Your task to perform on an android device: Open Android settings Image 0: 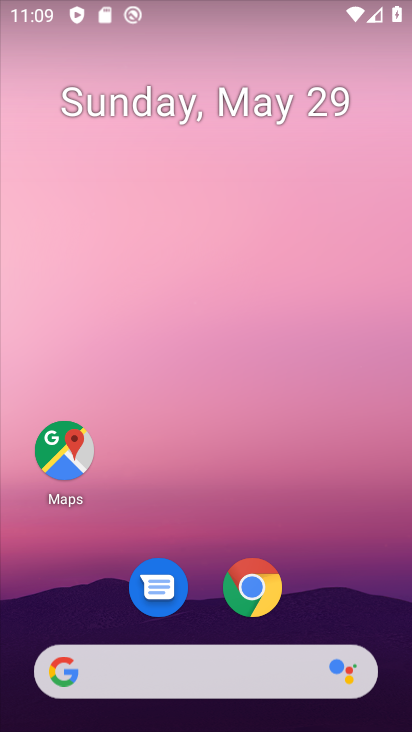
Step 0: drag from (390, 607) to (339, 200)
Your task to perform on an android device: Open Android settings Image 1: 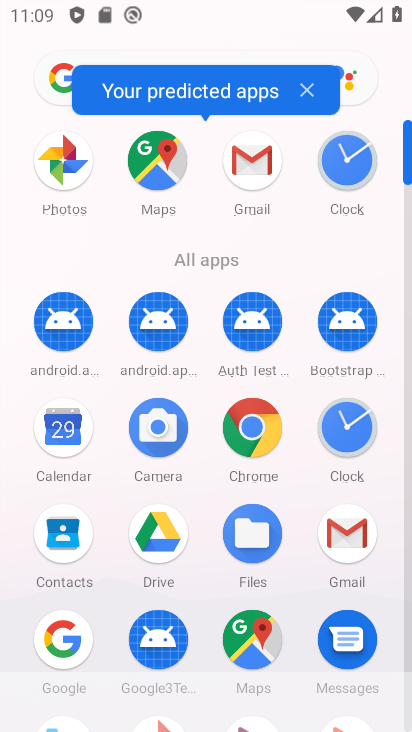
Step 1: click (408, 697)
Your task to perform on an android device: Open Android settings Image 2: 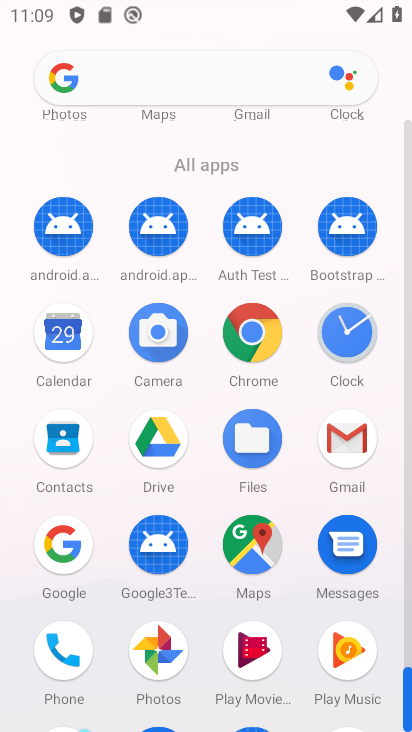
Step 2: drag from (393, 626) to (401, 399)
Your task to perform on an android device: Open Android settings Image 3: 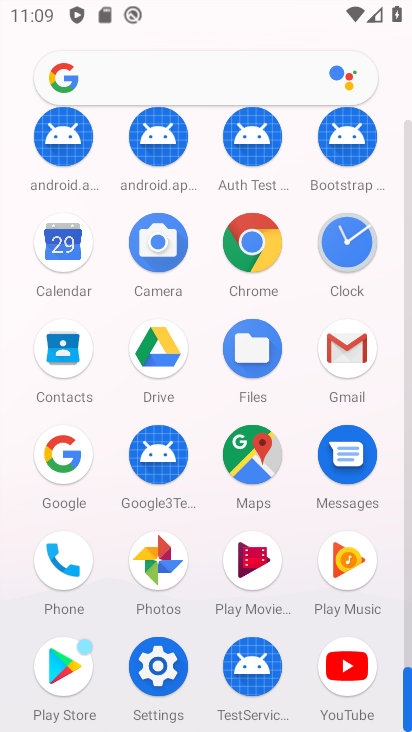
Step 3: click (161, 674)
Your task to perform on an android device: Open Android settings Image 4: 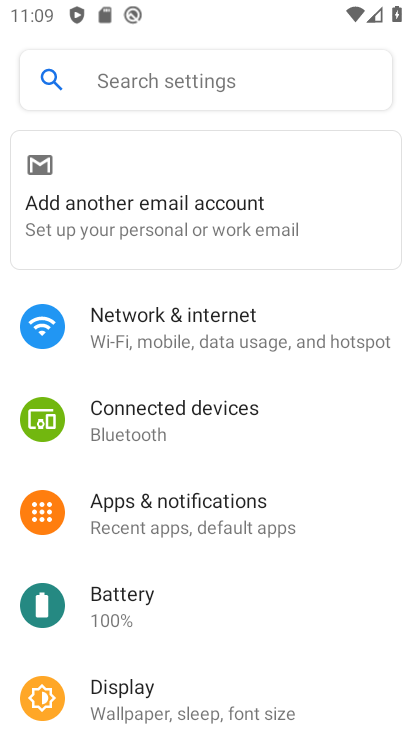
Step 4: task complete